Your task to perform on an android device: change notifications settings Image 0: 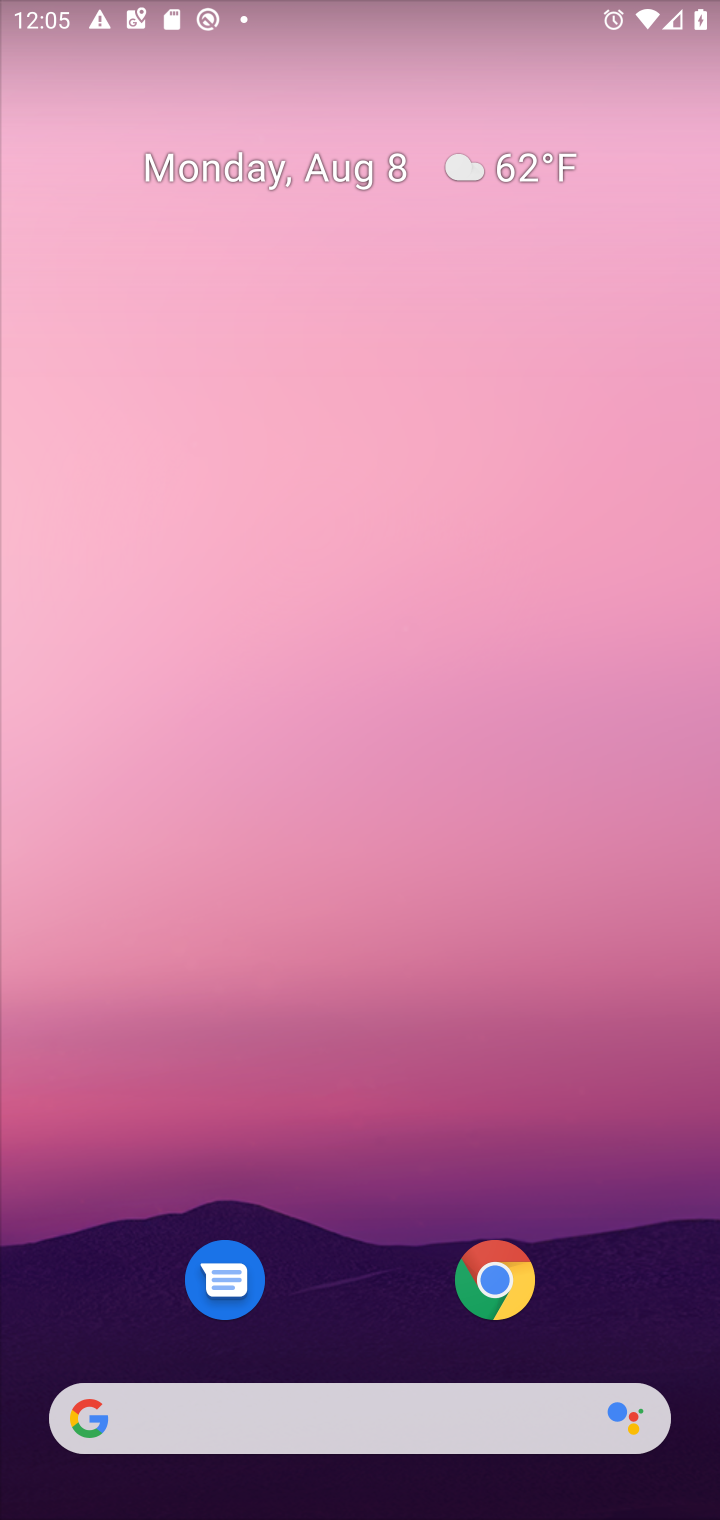
Step 0: drag from (340, 905) to (335, 209)
Your task to perform on an android device: change notifications settings Image 1: 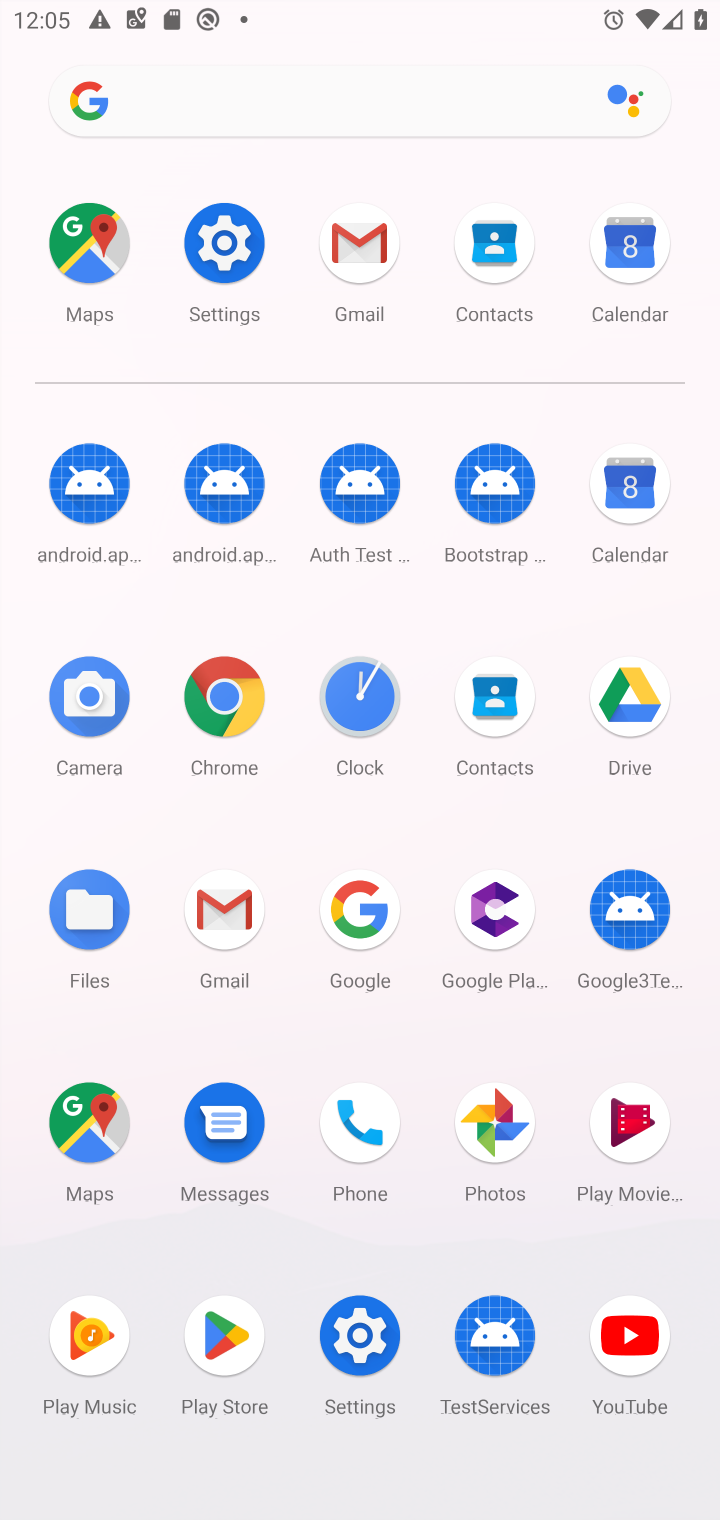
Step 1: click (218, 248)
Your task to perform on an android device: change notifications settings Image 2: 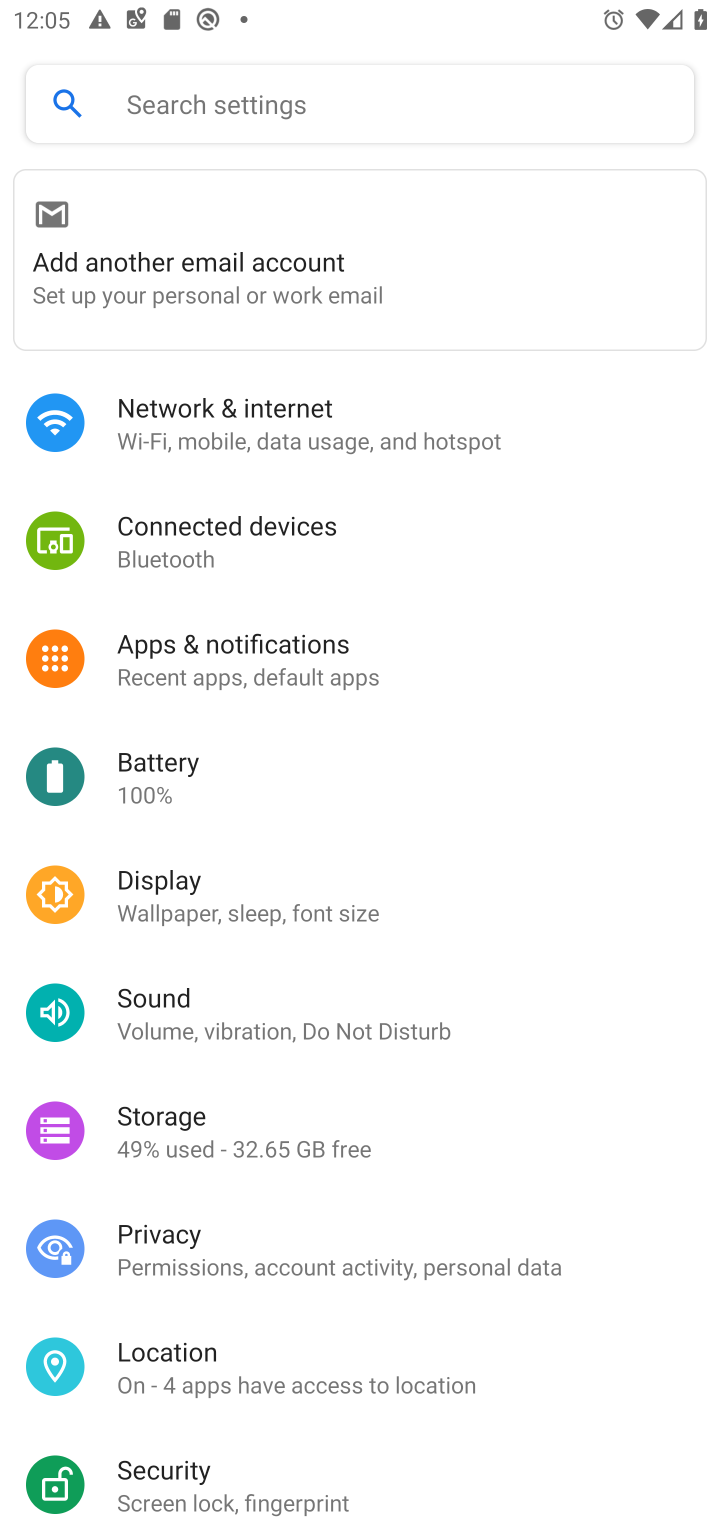
Step 2: click (227, 651)
Your task to perform on an android device: change notifications settings Image 3: 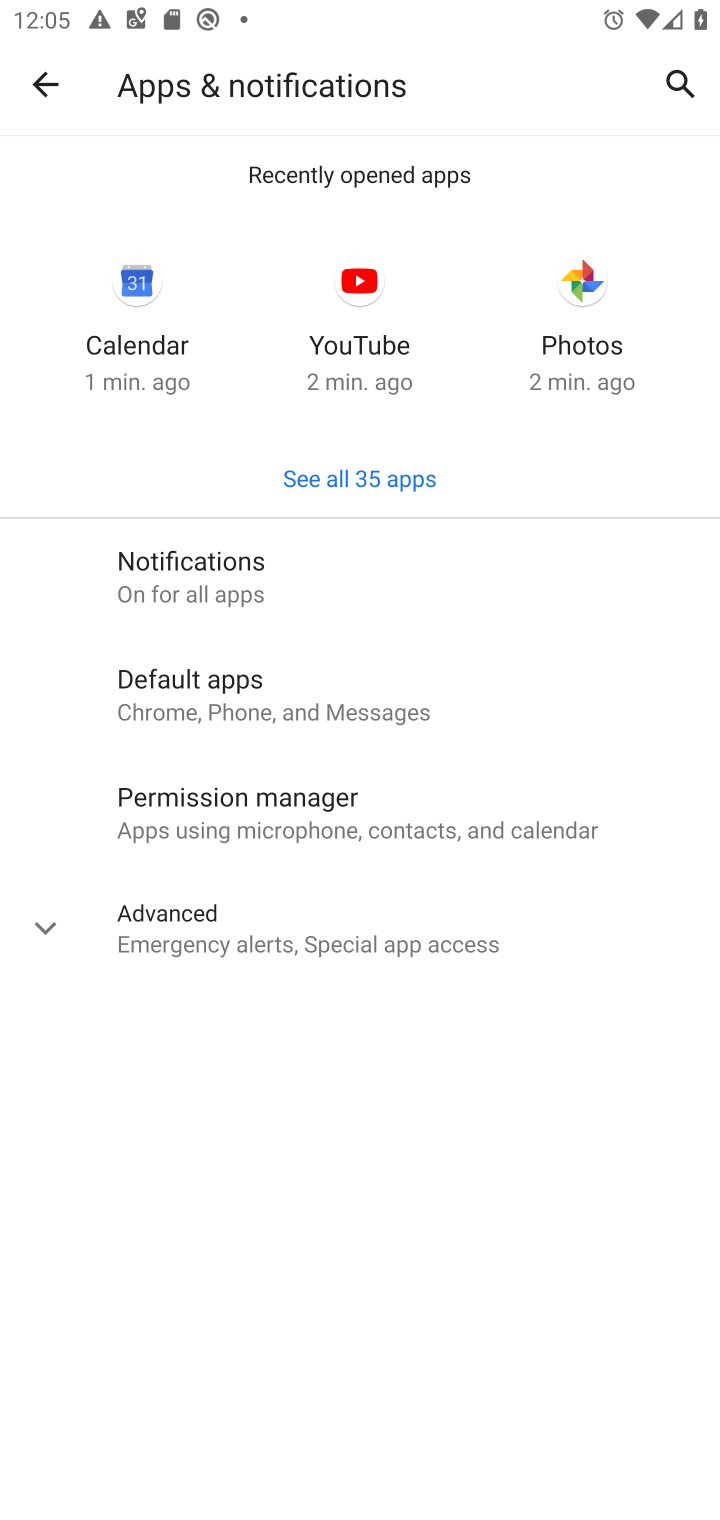
Step 3: click (186, 594)
Your task to perform on an android device: change notifications settings Image 4: 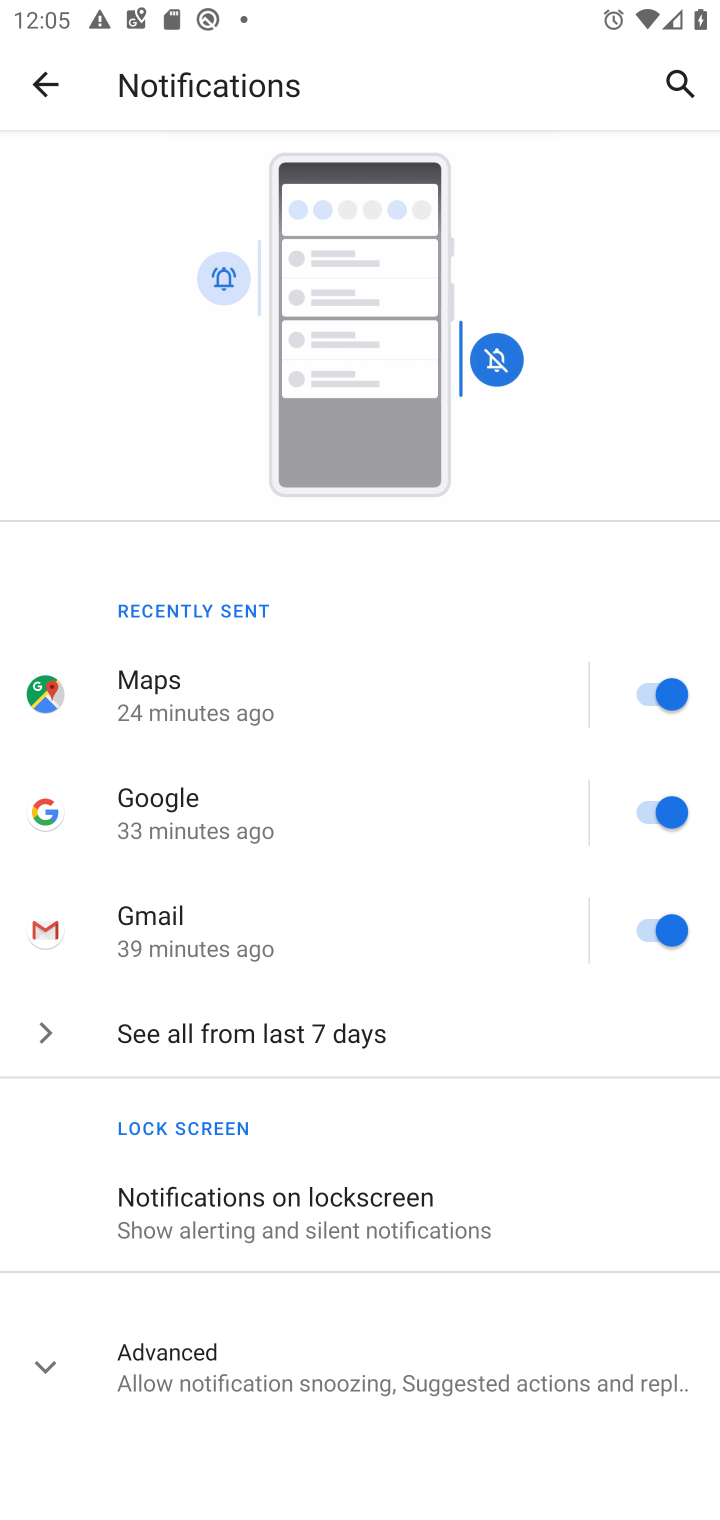
Step 4: click (211, 1379)
Your task to perform on an android device: change notifications settings Image 5: 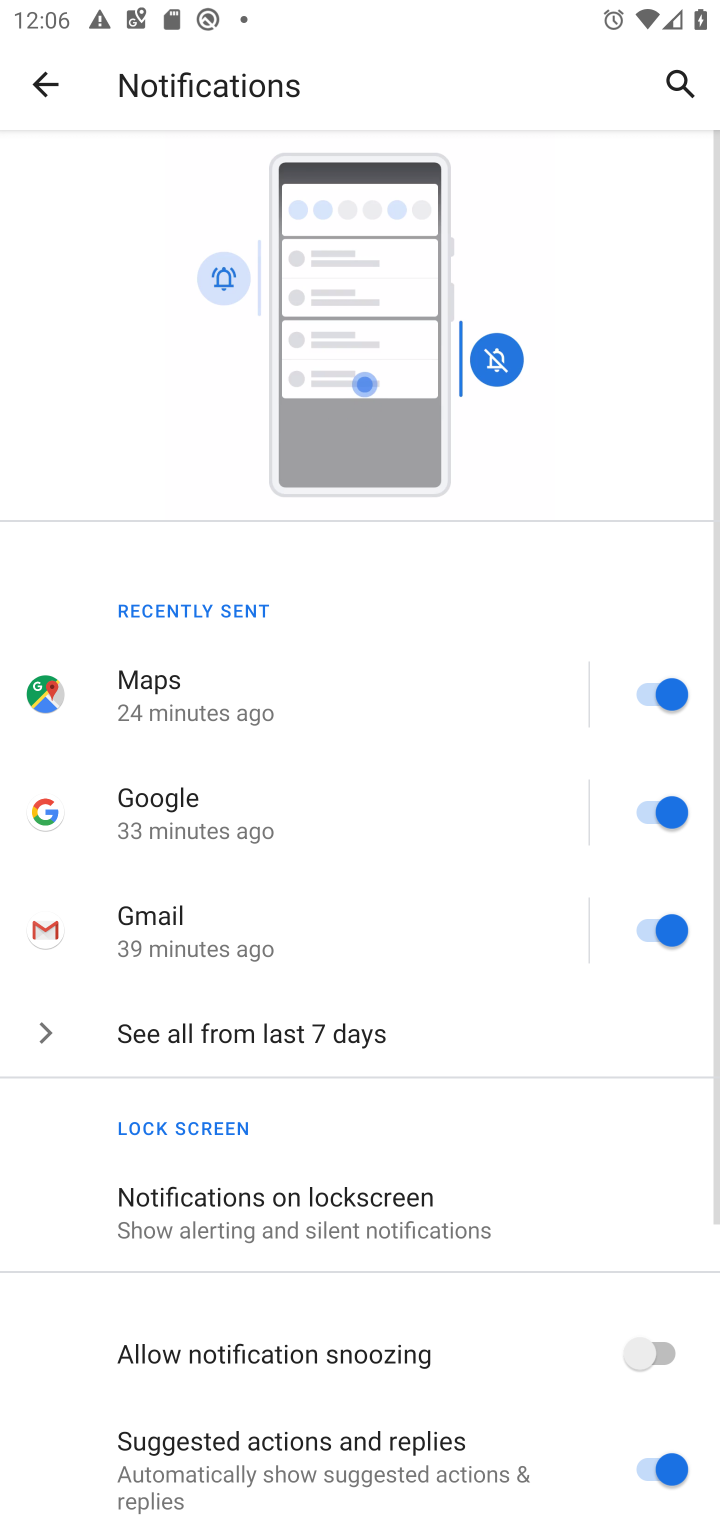
Step 5: click (654, 1359)
Your task to perform on an android device: change notifications settings Image 6: 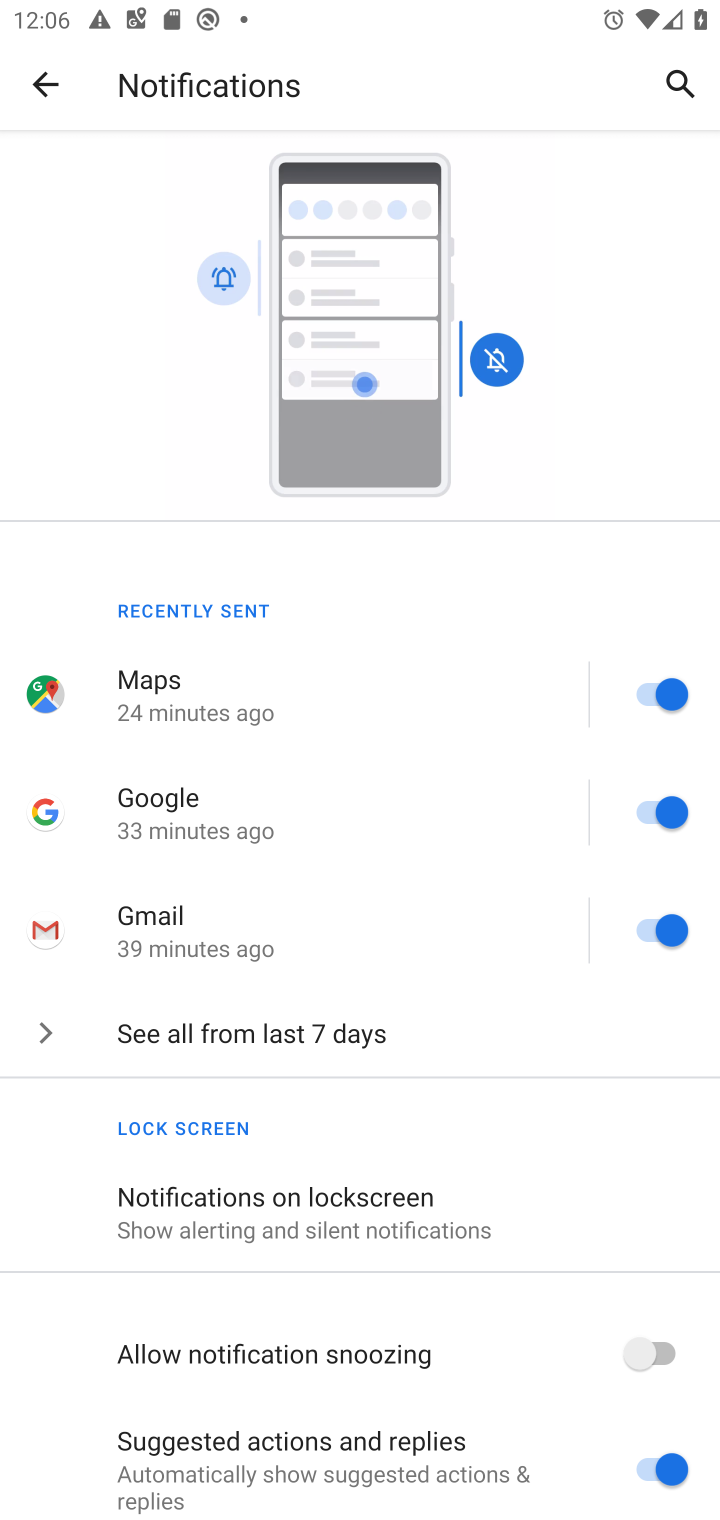
Step 6: task complete